Your task to perform on an android device: uninstall "Reddit" Image 0: 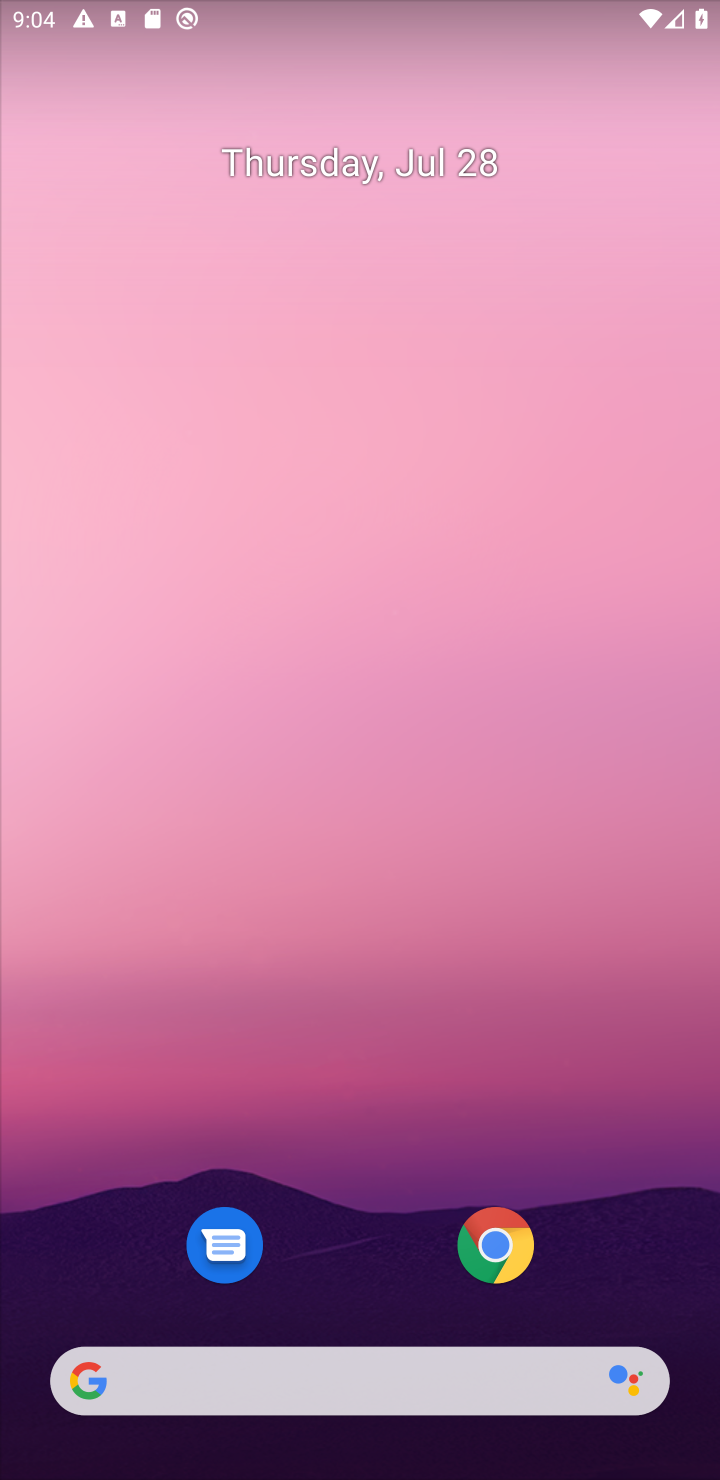
Step 0: drag from (327, 0) to (441, 24)
Your task to perform on an android device: uninstall "Reddit" Image 1: 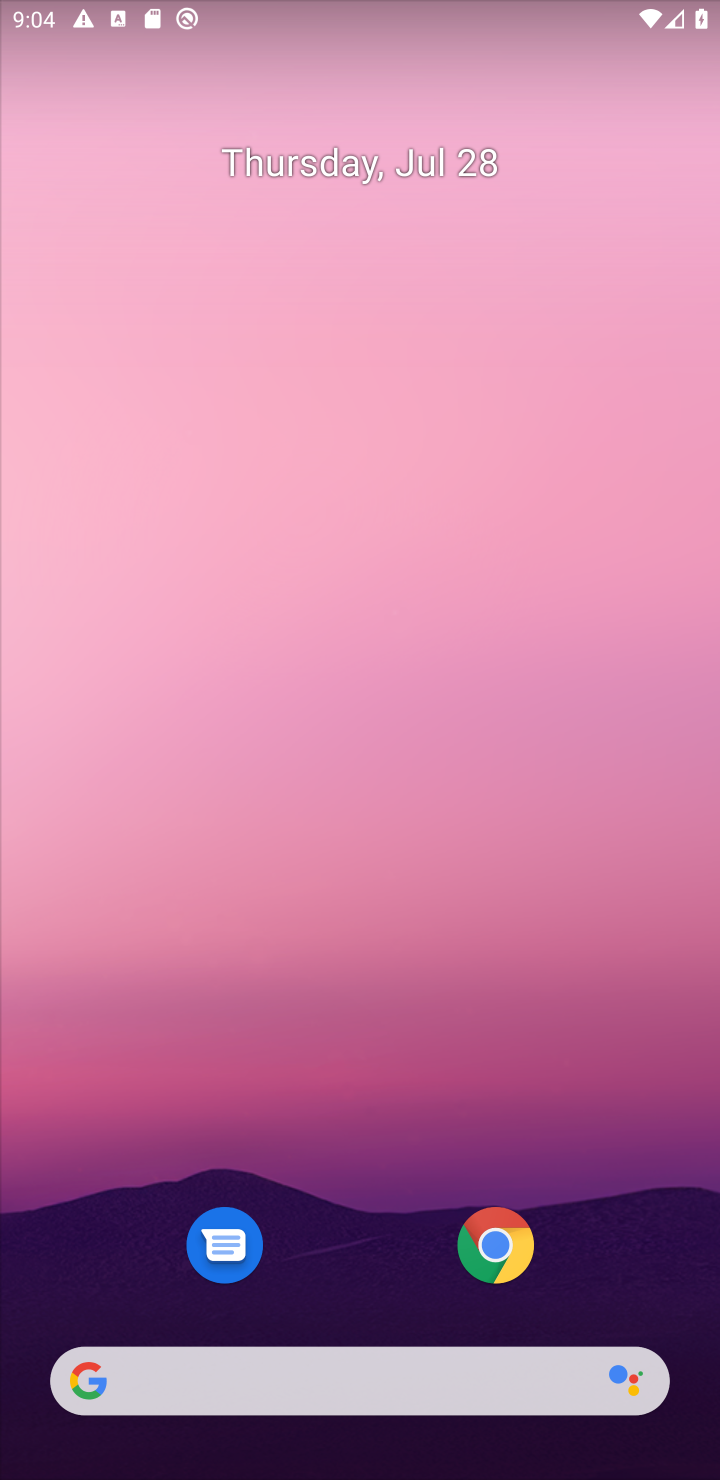
Step 1: click (338, 1154)
Your task to perform on an android device: uninstall "Reddit" Image 2: 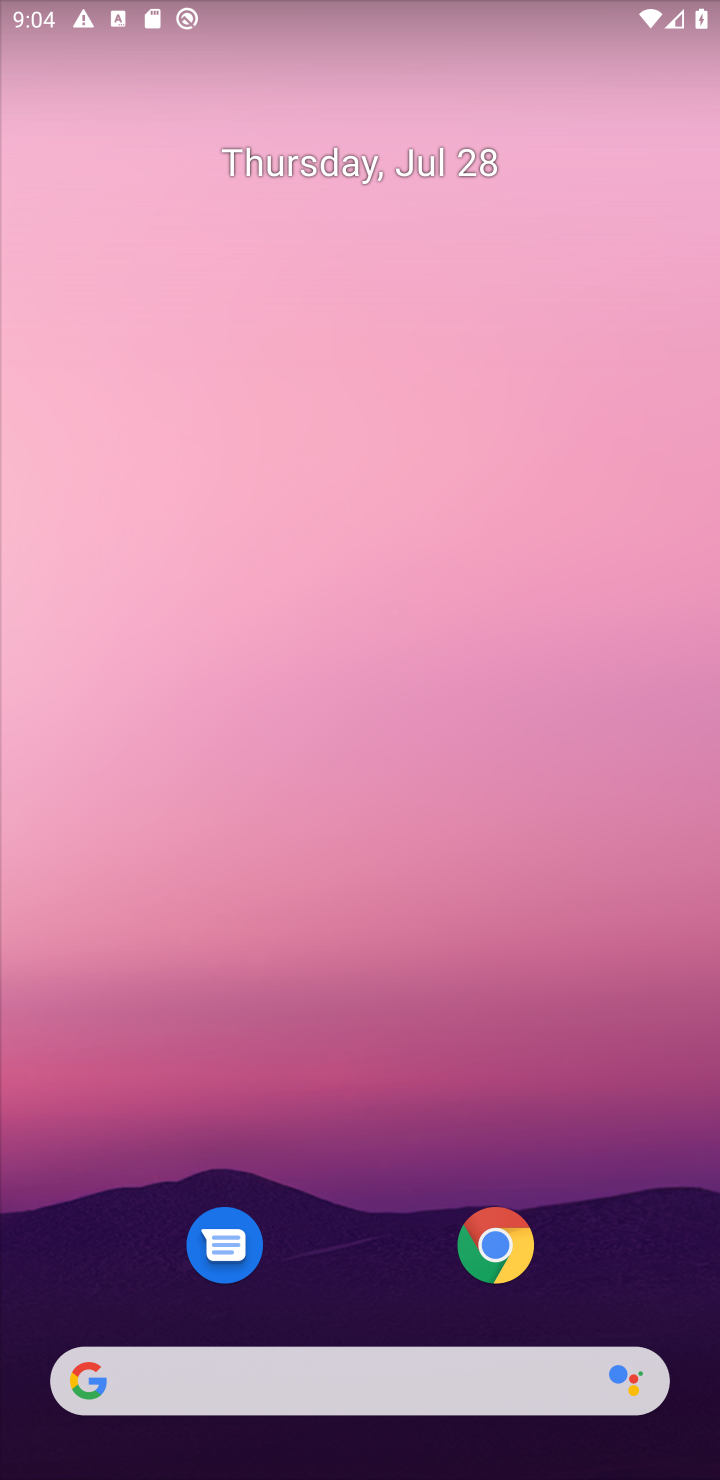
Step 2: drag from (338, 1228) to (618, 22)
Your task to perform on an android device: uninstall "Reddit" Image 3: 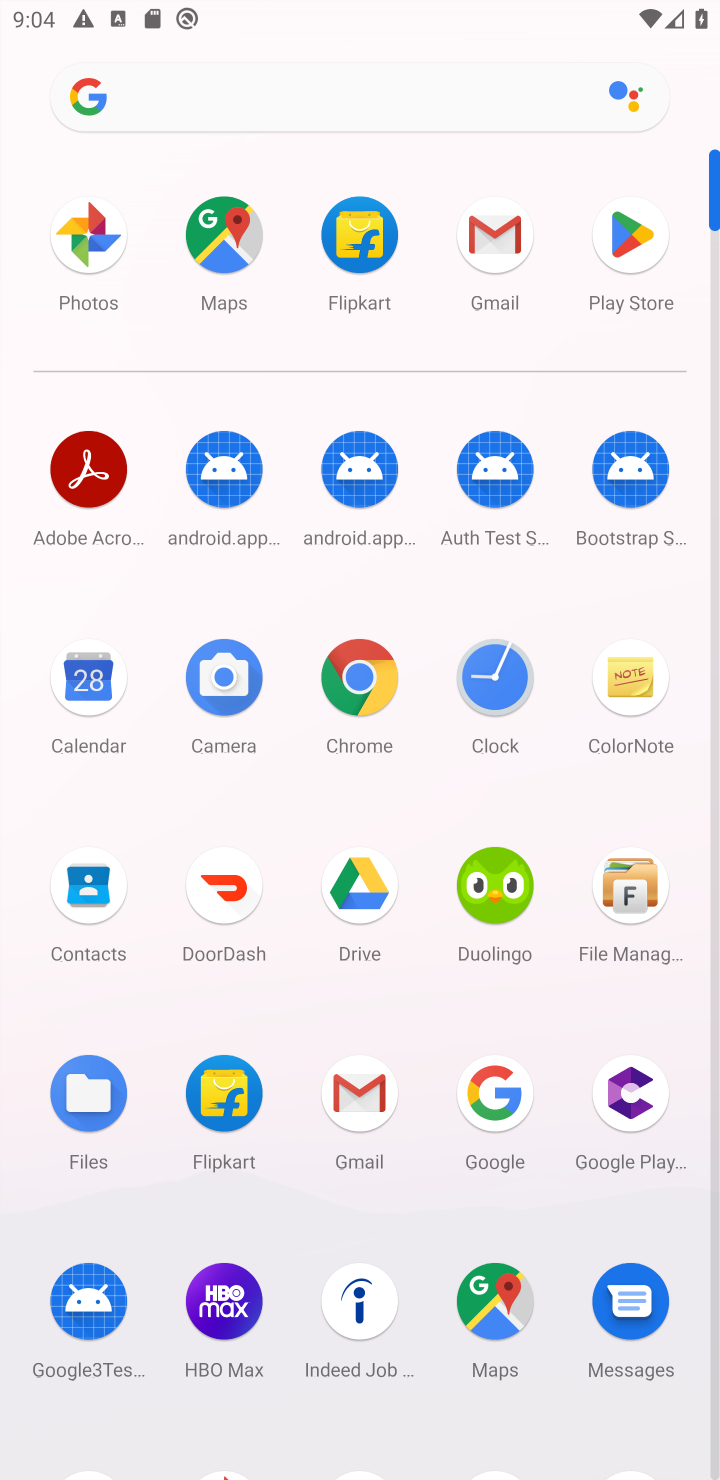
Step 3: click (624, 239)
Your task to perform on an android device: uninstall "Reddit" Image 4: 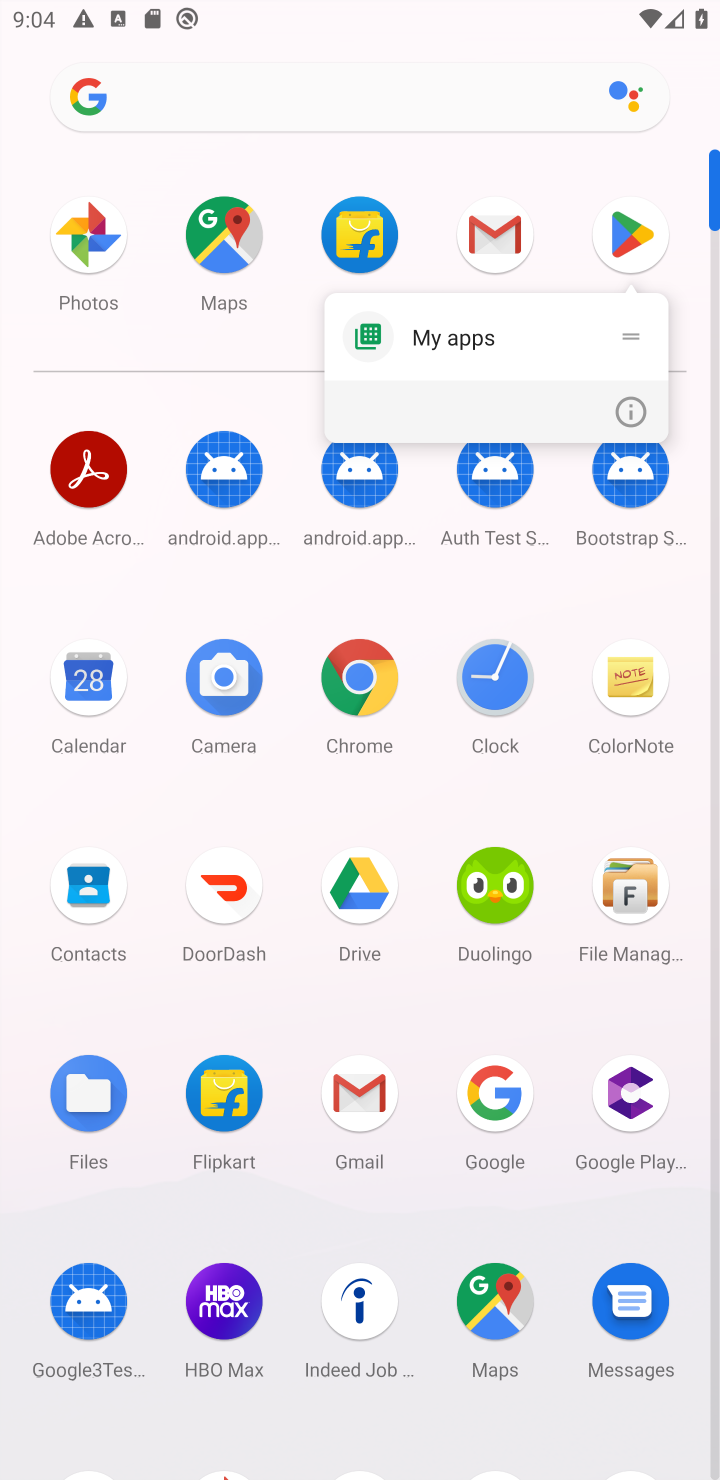
Step 4: click (624, 239)
Your task to perform on an android device: uninstall "Reddit" Image 5: 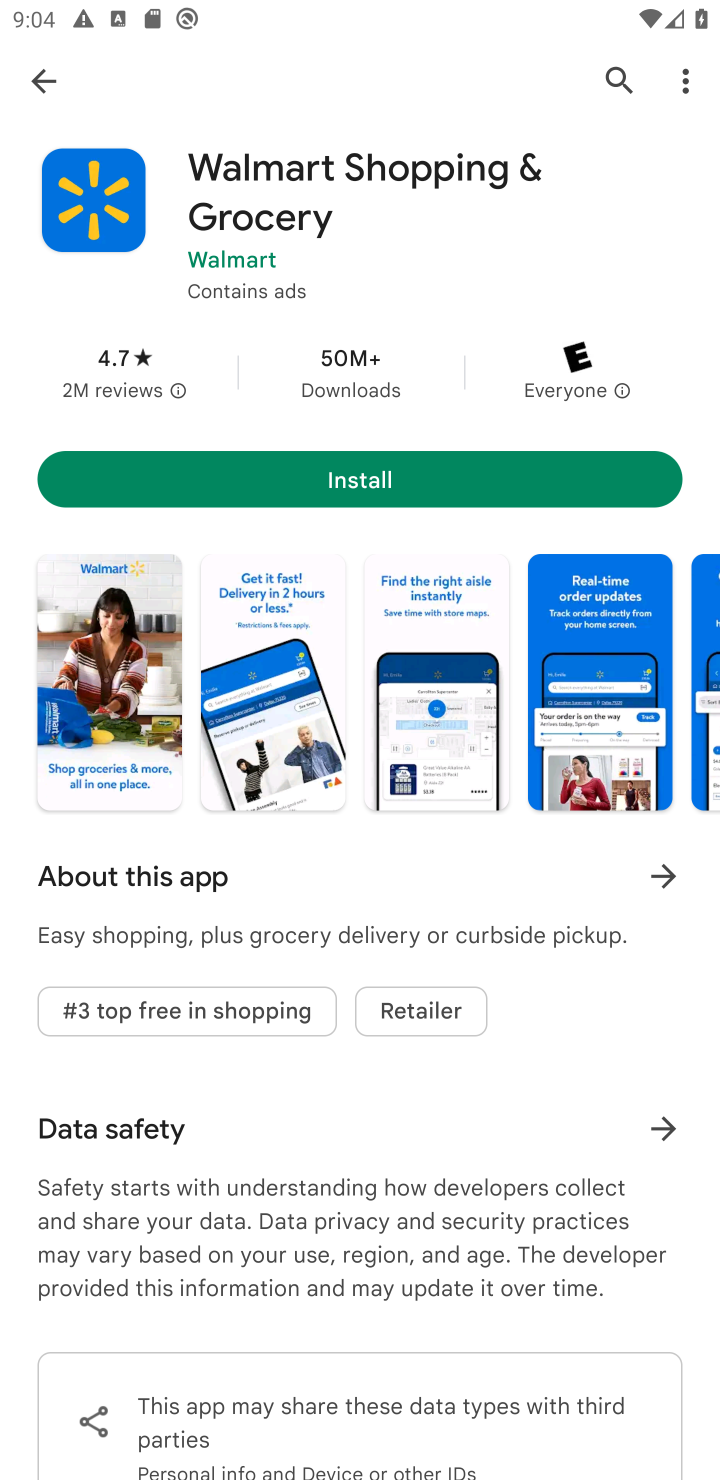
Step 5: click (621, 97)
Your task to perform on an android device: uninstall "Reddit" Image 6: 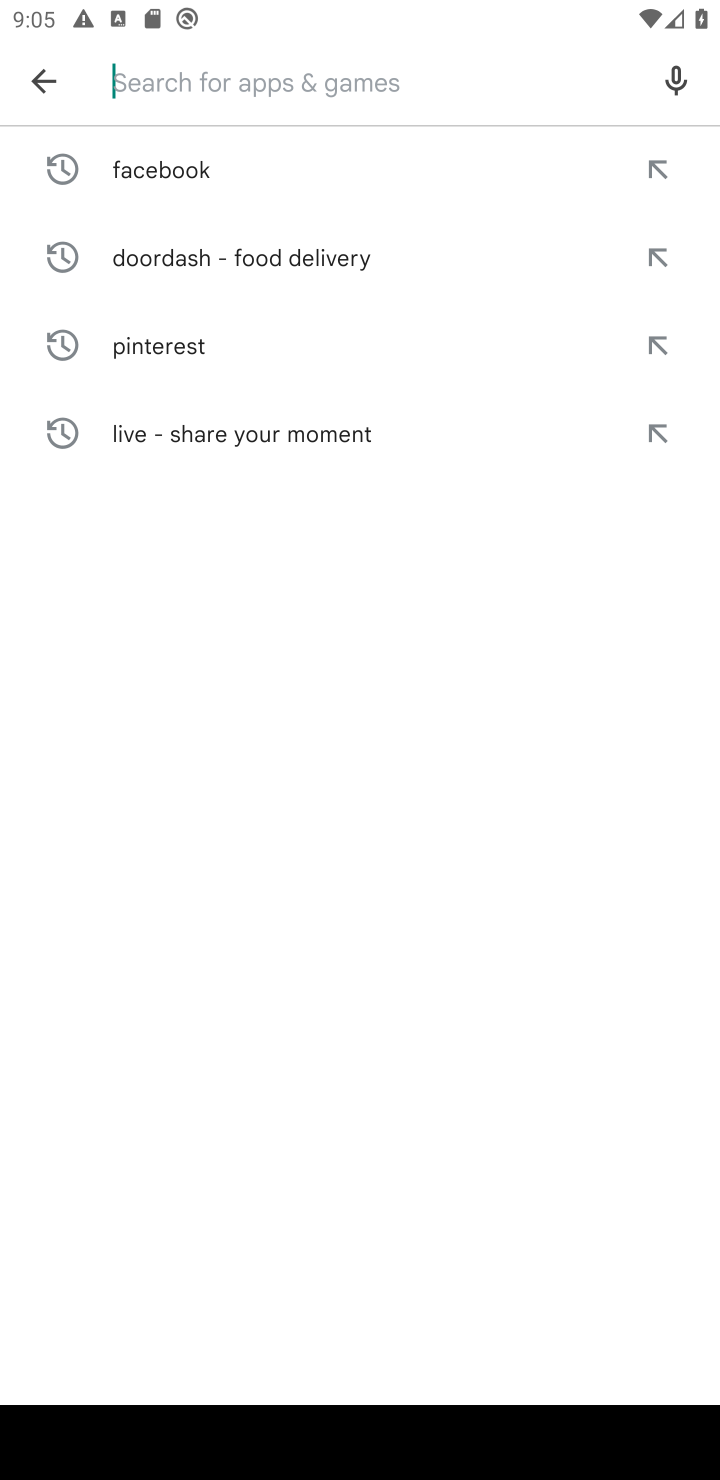
Step 6: type "Reddit"
Your task to perform on an android device: uninstall "Reddit" Image 7: 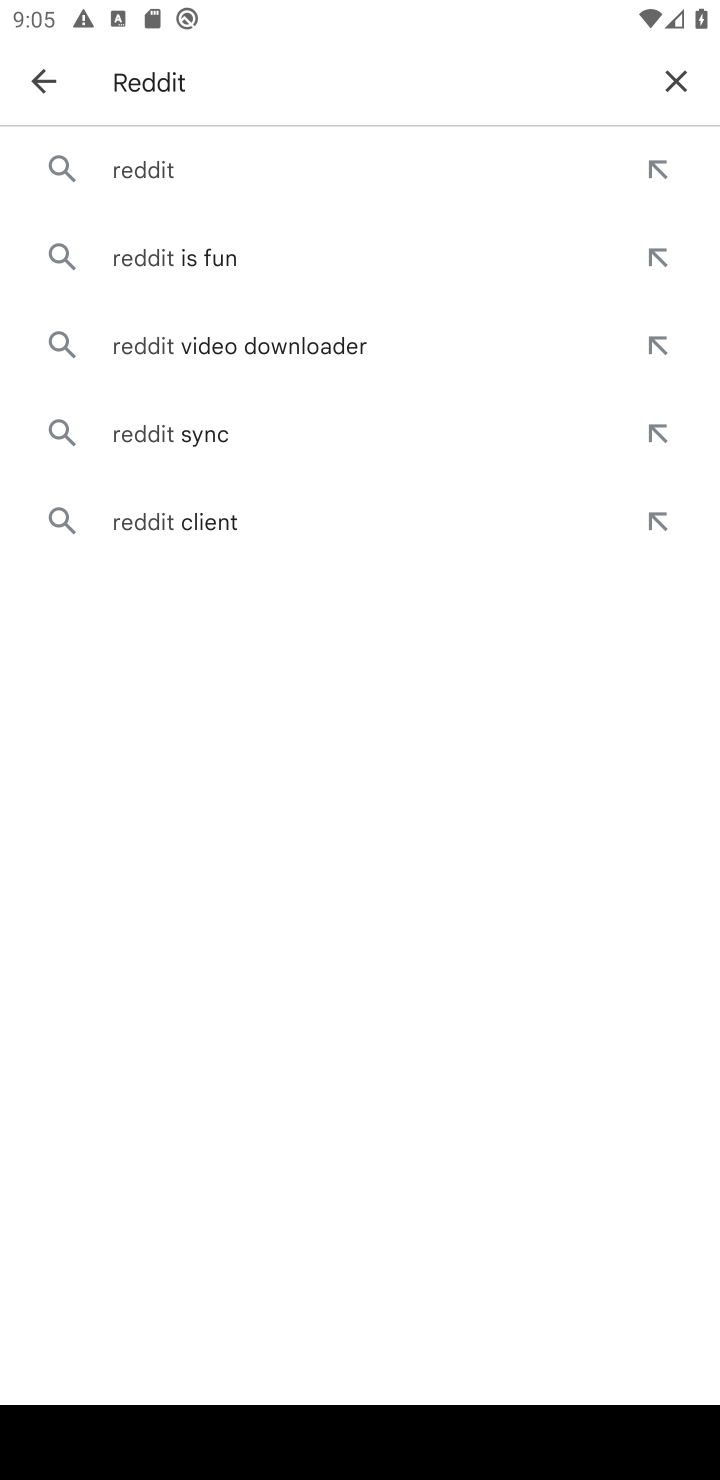
Step 7: click (244, 159)
Your task to perform on an android device: uninstall "Reddit" Image 8: 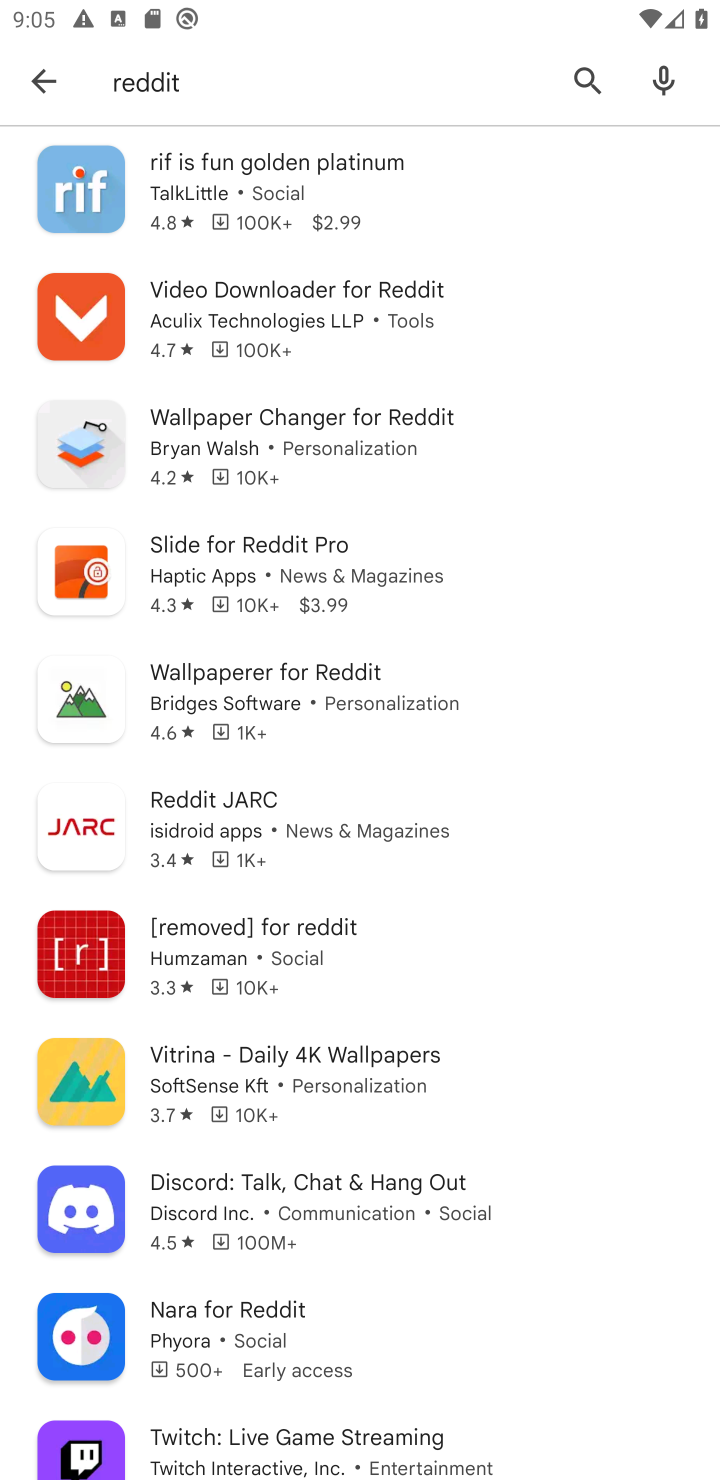
Step 8: task complete